Your task to perform on an android device: turn off airplane mode Image 0: 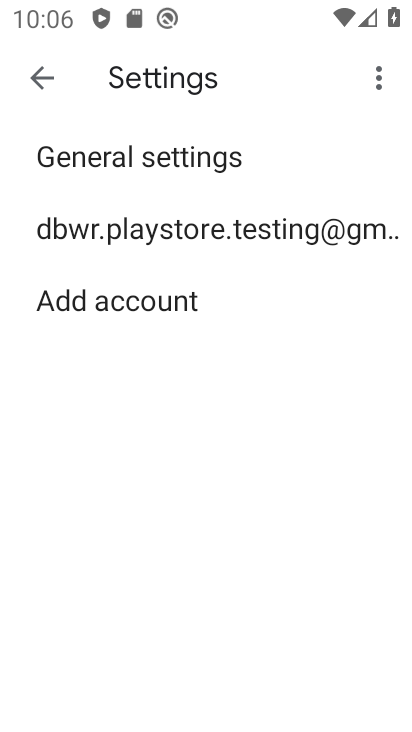
Step 0: press home button
Your task to perform on an android device: turn off airplane mode Image 1: 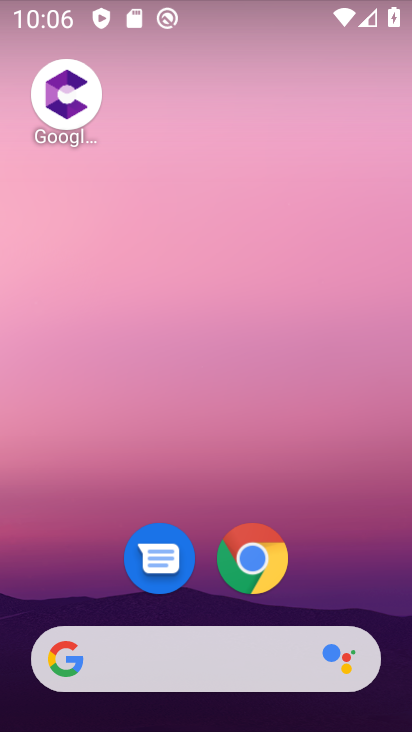
Step 1: drag from (314, 590) to (367, 48)
Your task to perform on an android device: turn off airplane mode Image 2: 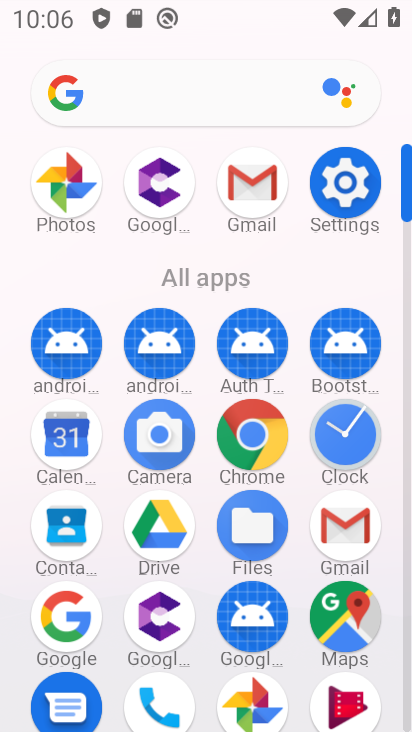
Step 2: click (346, 180)
Your task to perform on an android device: turn off airplane mode Image 3: 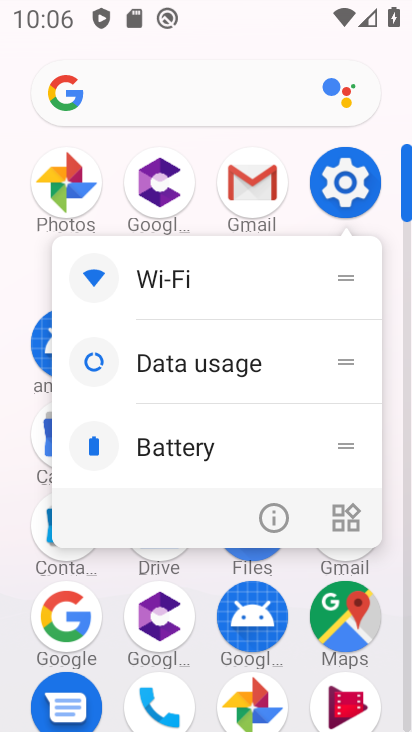
Step 3: click (341, 183)
Your task to perform on an android device: turn off airplane mode Image 4: 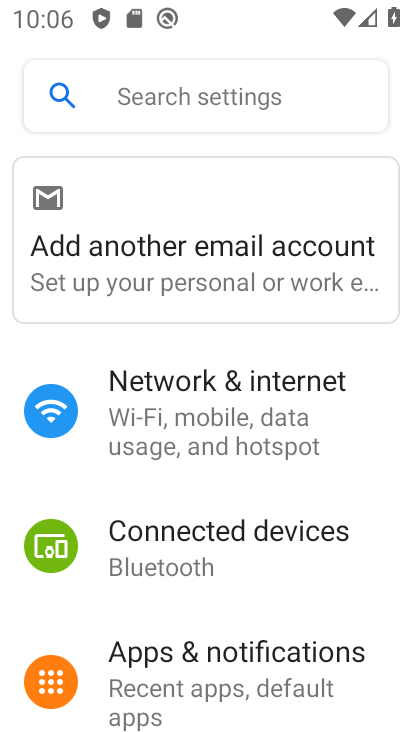
Step 4: click (208, 421)
Your task to perform on an android device: turn off airplane mode Image 5: 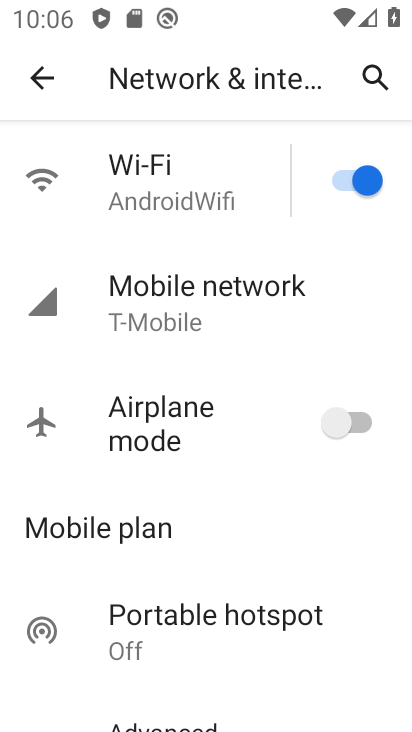
Step 5: task complete